Your task to perform on an android device: find photos in the google photos app Image 0: 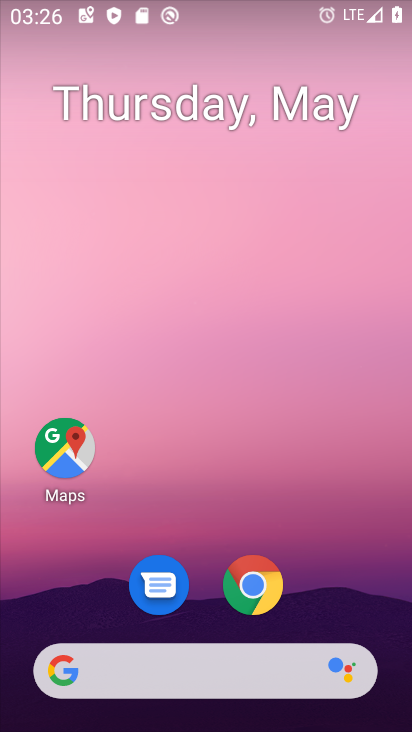
Step 0: drag from (225, 518) to (224, 35)
Your task to perform on an android device: find photos in the google photos app Image 1: 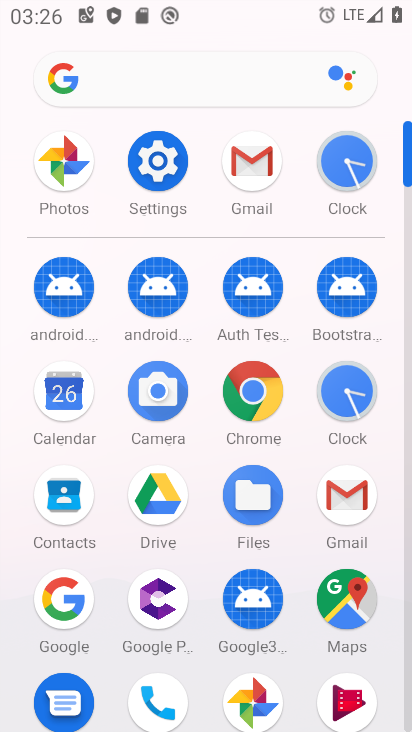
Step 1: click (71, 163)
Your task to perform on an android device: find photos in the google photos app Image 2: 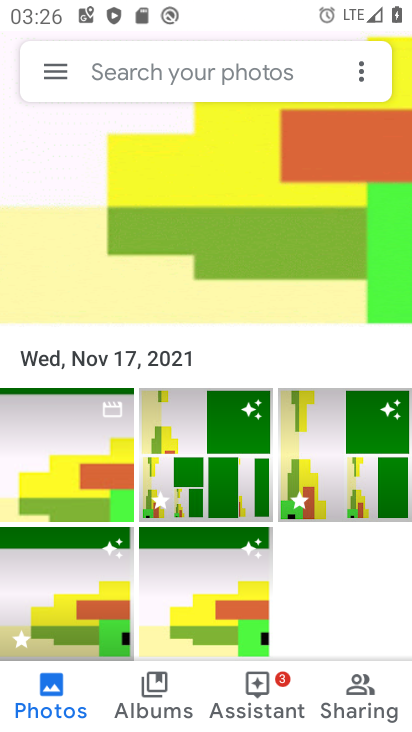
Step 2: task complete